Your task to perform on an android device: set the timer Image 0: 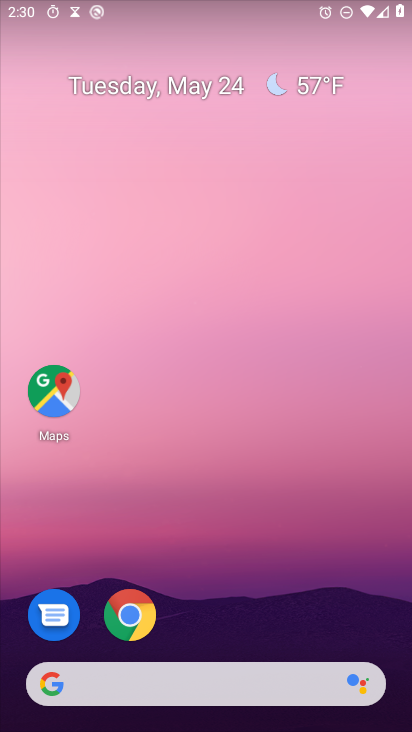
Step 0: drag from (231, 657) to (225, 242)
Your task to perform on an android device: set the timer Image 1: 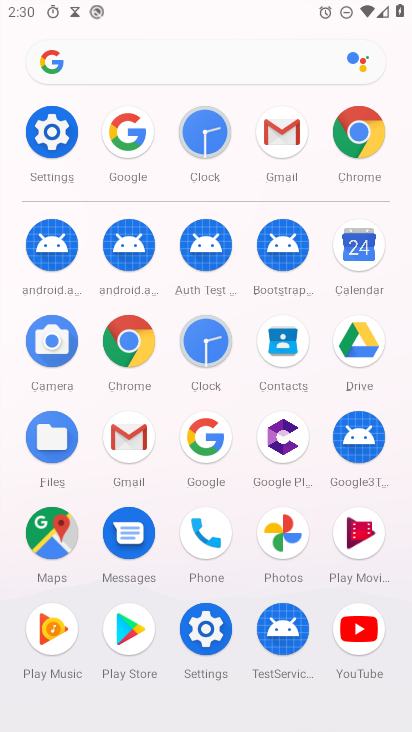
Step 1: click (192, 139)
Your task to perform on an android device: set the timer Image 2: 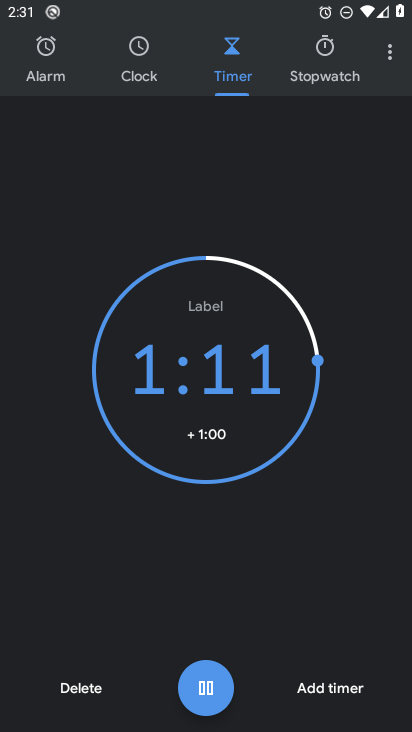
Step 2: task complete